Your task to perform on an android device: change the clock display to digital Image 0: 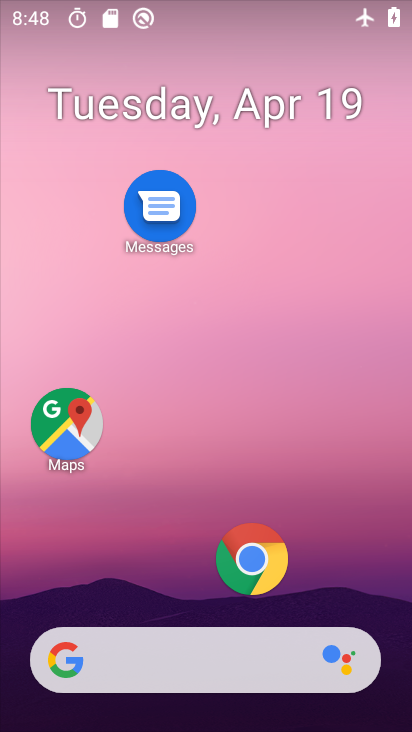
Step 0: drag from (153, 435) to (138, 102)
Your task to perform on an android device: change the clock display to digital Image 1: 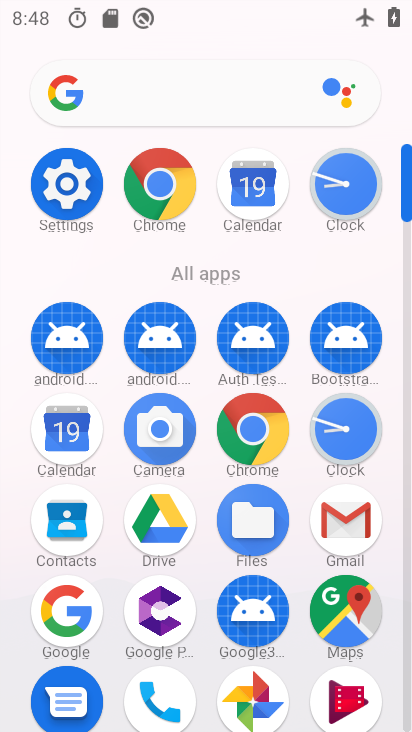
Step 1: click (340, 413)
Your task to perform on an android device: change the clock display to digital Image 2: 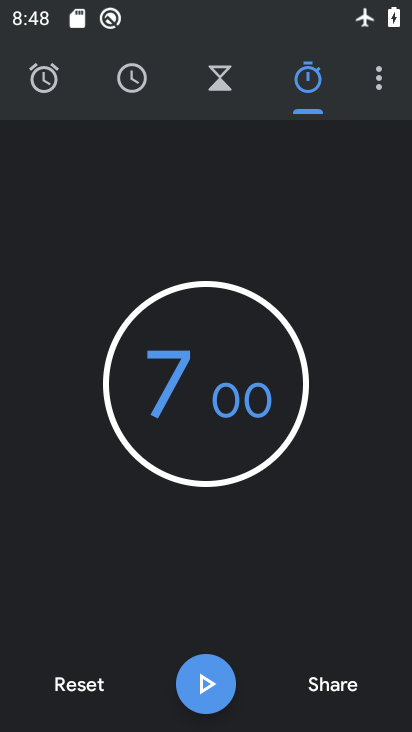
Step 2: click (370, 83)
Your task to perform on an android device: change the clock display to digital Image 3: 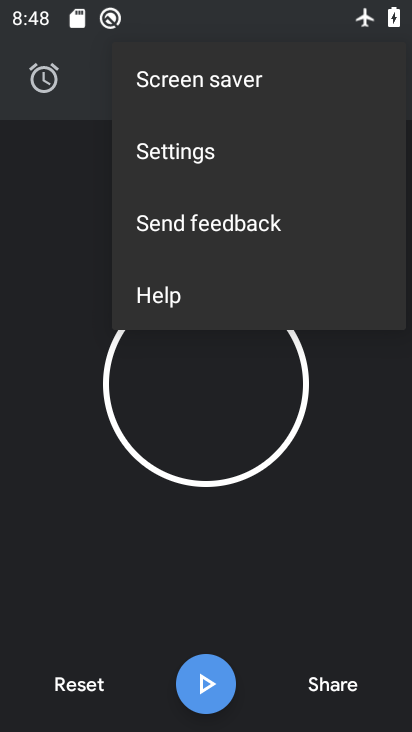
Step 3: click (192, 155)
Your task to perform on an android device: change the clock display to digital Image 4: 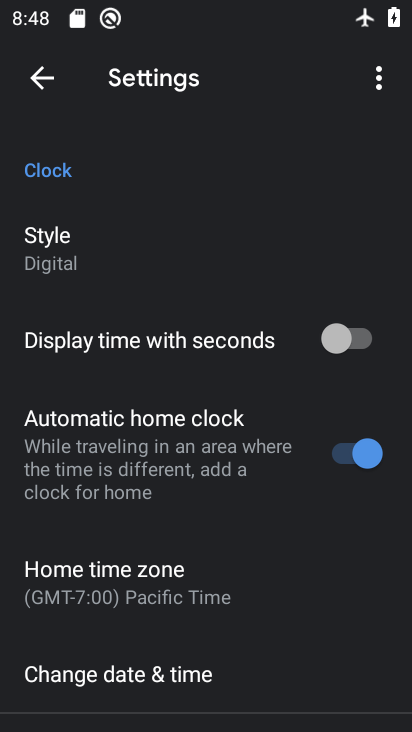
Step 4: click (92, 242)
Your task to perform on an android device: change the clock display to digital Image 5: 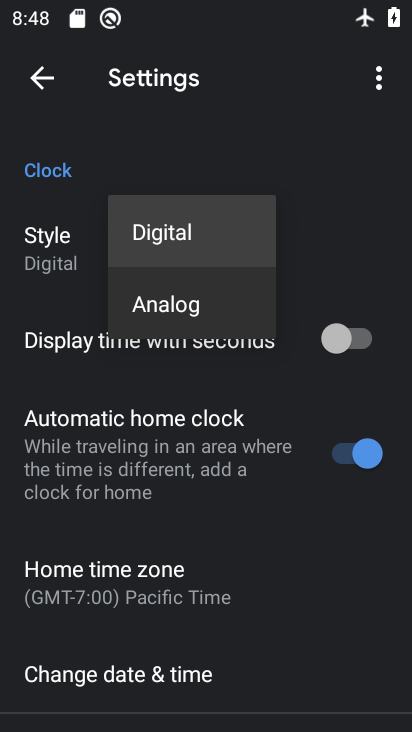
Step 5: click (197, 240)
Your task to perform on an android device: change the clock display to digital Image 6: 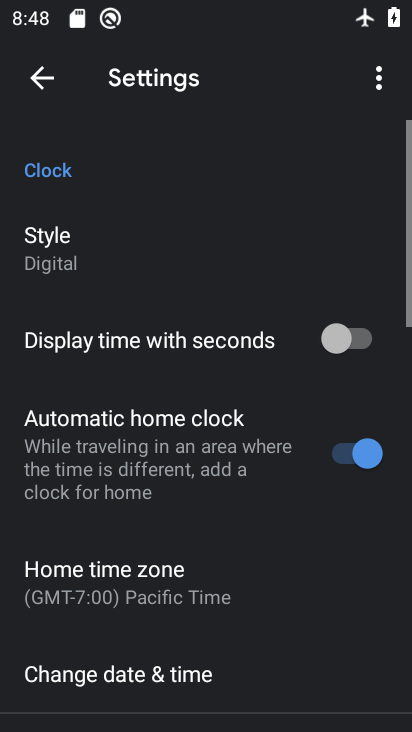
Step 6: task complete